Your task to perform on an android device: Toggle the flashlight Image 0: 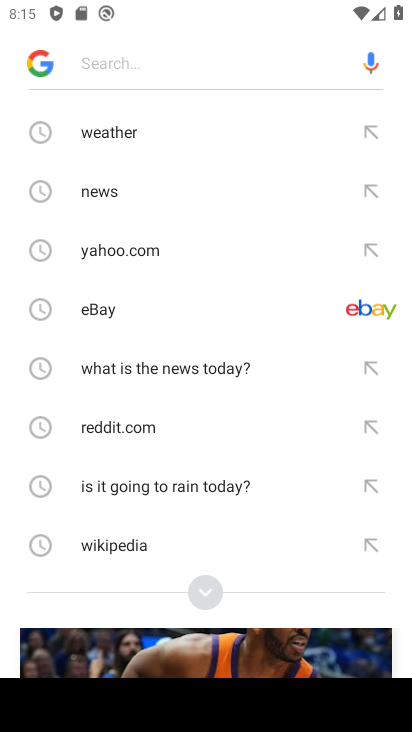
Step 0: press back button
Your task to perform on an android device: Toggle the flashlight Image 1: 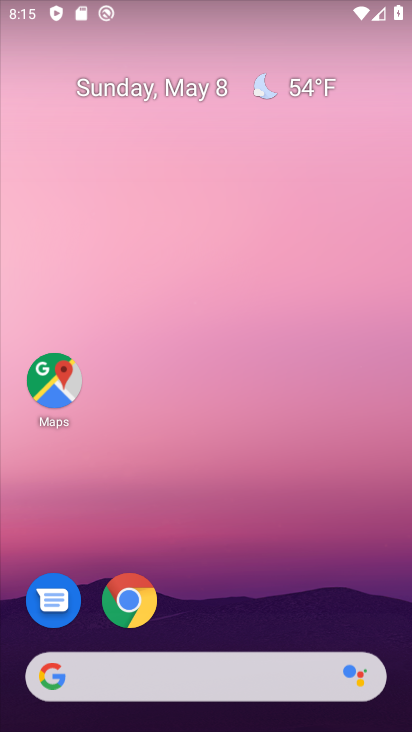
Step 1: drag from (288, 627) to (260, 293)
Your task to perform on an android device: Toggle the flashlight Image 2: 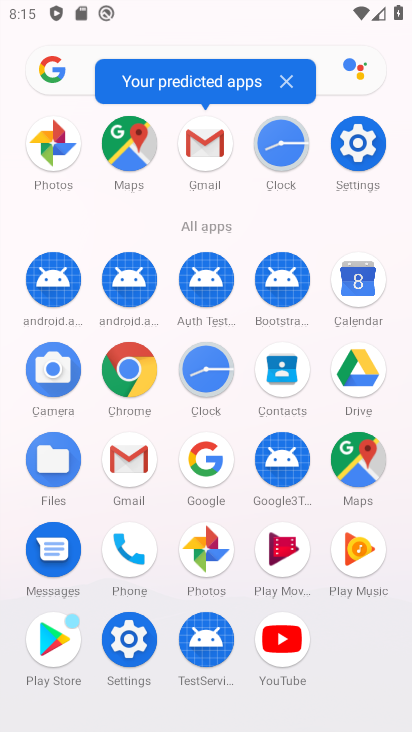
Step 2: click (347, 166)
Your task to perform on an android device: Toggle the flashlight Image 3: 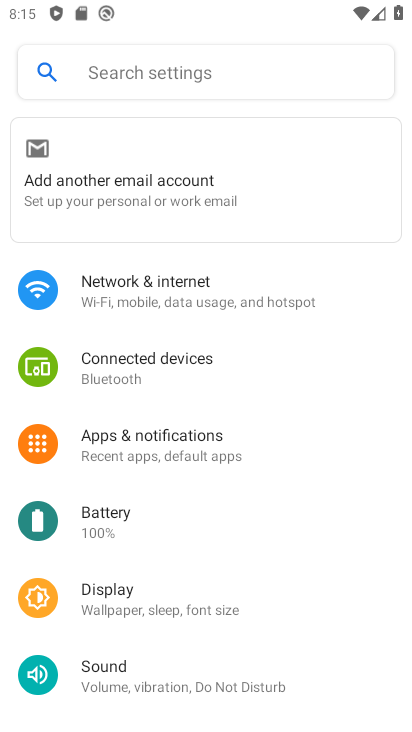
Step 3: task complete